Your task to perform on an android device: Open the phone app and click the voicemail tab. Image 0: 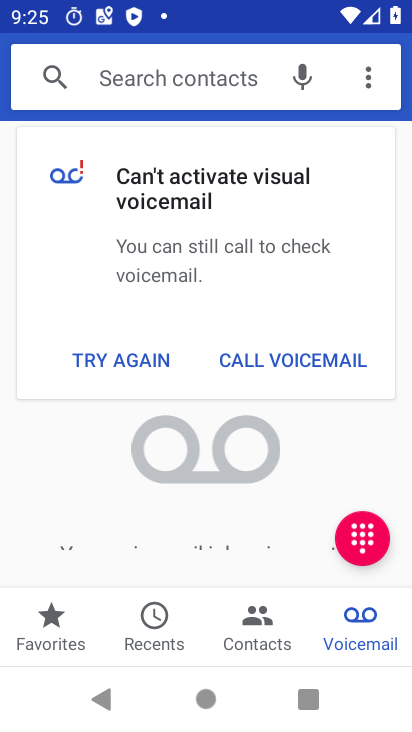
Step 0: click (366, 632)
Your task to perform on an android device: Open the phone app and click the voicemail tab. Image 1: 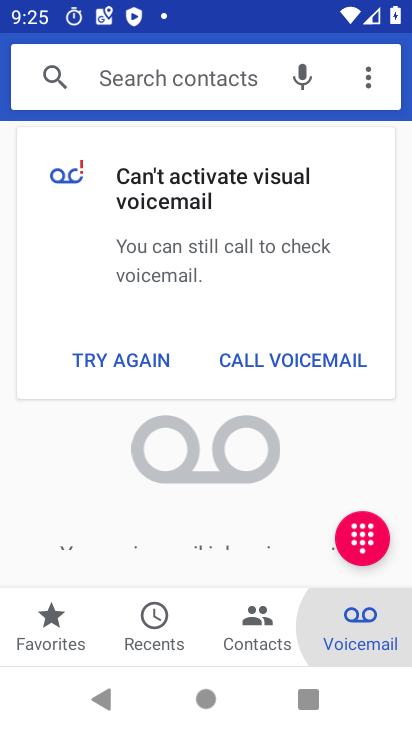
Step 1: click (367, 631)
Your task to perform on an android device: Open the phone app and click the voicemail tab. Image 2: 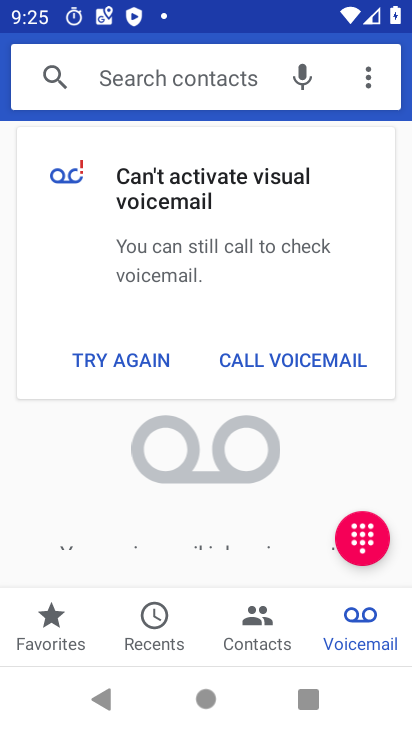
Step 2: task complete